Your task to perform on an android device: Open Google Image 0: 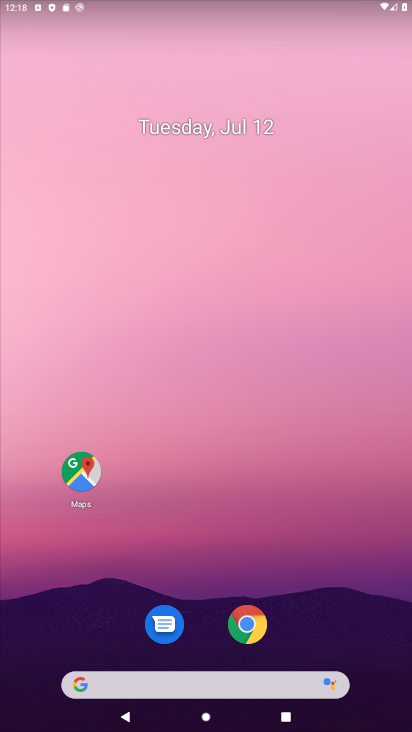
Step 0: drag from (204, 595) to (243, 277)
Your task to perform on an android device: Open Google Image 1: 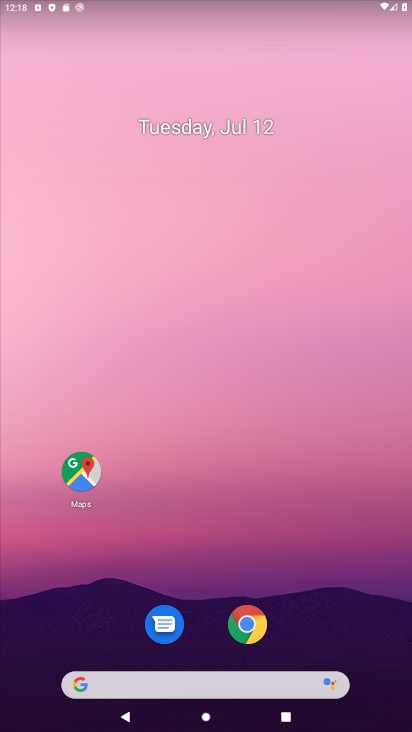
Step 1: drag from (208, 624) to (235, 139)
Your task to perform on an android device: Open Google Image 2: 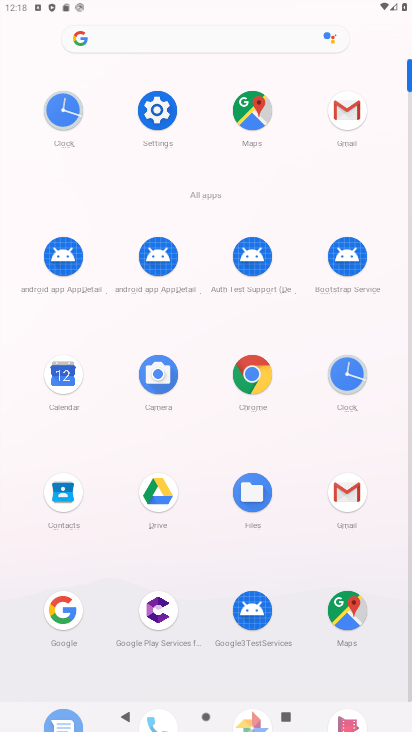
Step 2: click (65, 604)
Your task to perform on an android device: Open Google Image 3: 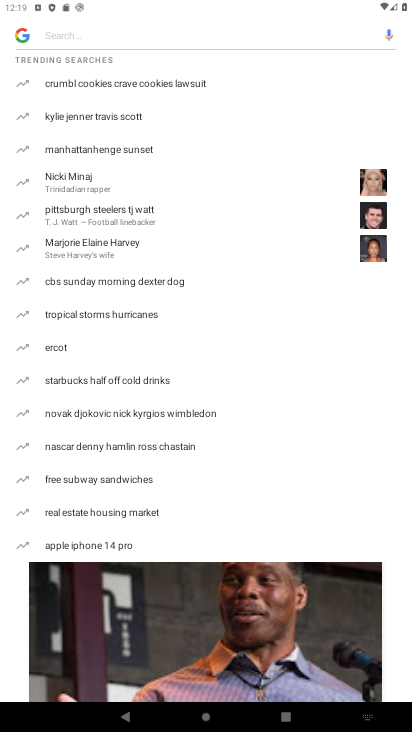
Step 3: task complete